Your task to perform on an android device: Go to display settings Image 0: 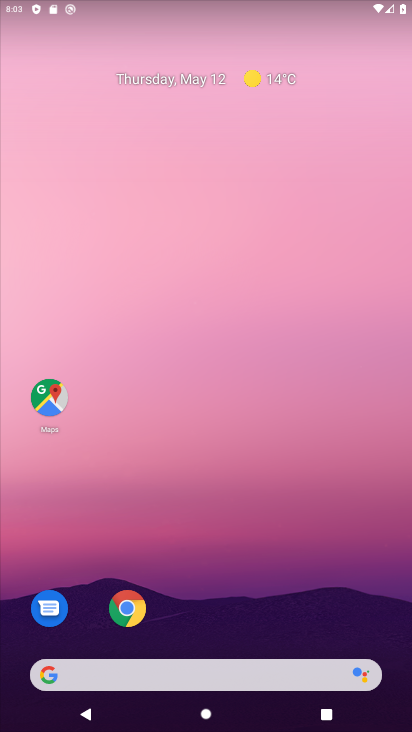
Step 0: drag from (204, 642) to (204, 281)
Your task to perform on an android device: Go to display settings Image 1: 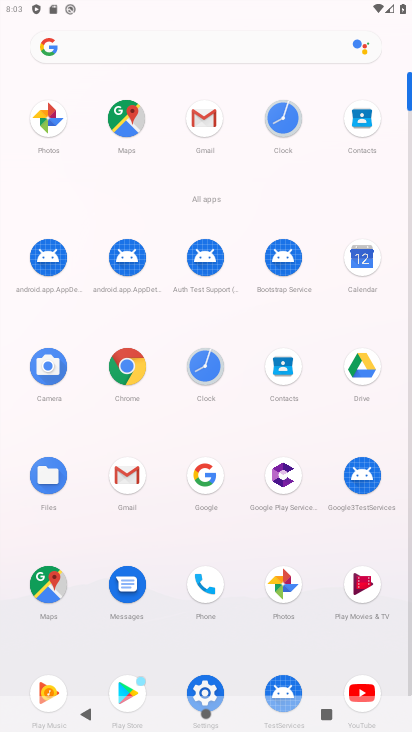
Step 1: drag from (241, 665) to (279, 441)
Your task to perform on an android device: Go to display settings Image 2: 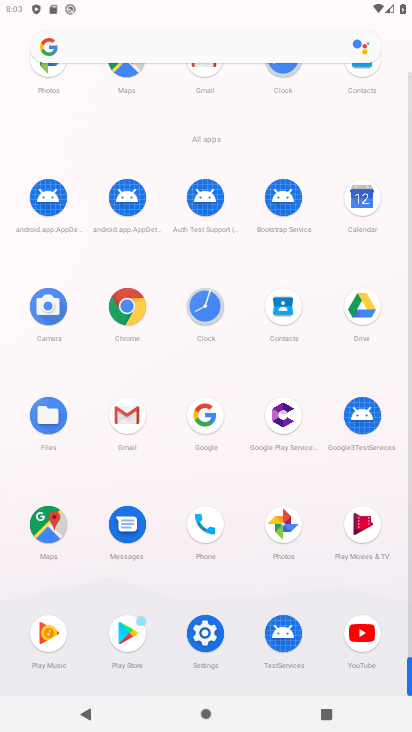
Step 2: click (205, 630)
Your task to perform on an android device: Go to display settings Image 3: 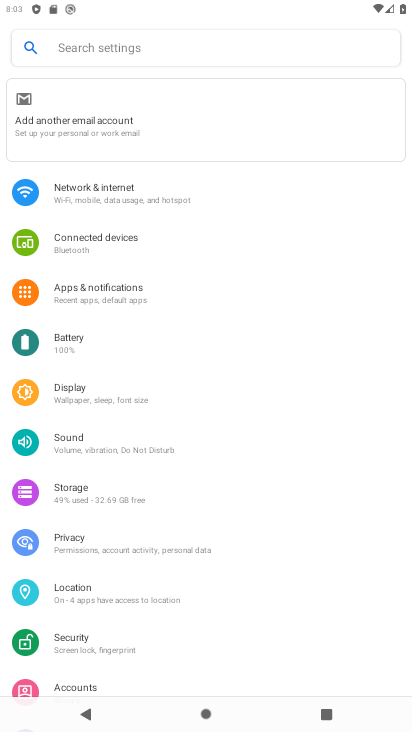
Step 3: click (119, 391)
Your task to perform on an android device: Go to display settings Image 4: 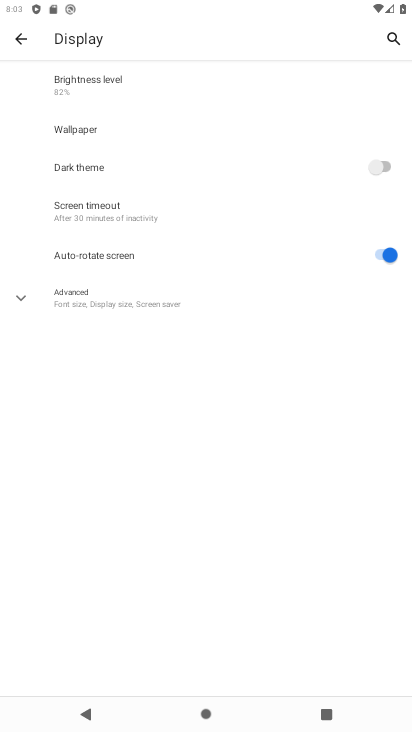
Step 4: click (86, 294)
Your task to perform on an android device: Go to display settings Image 5: 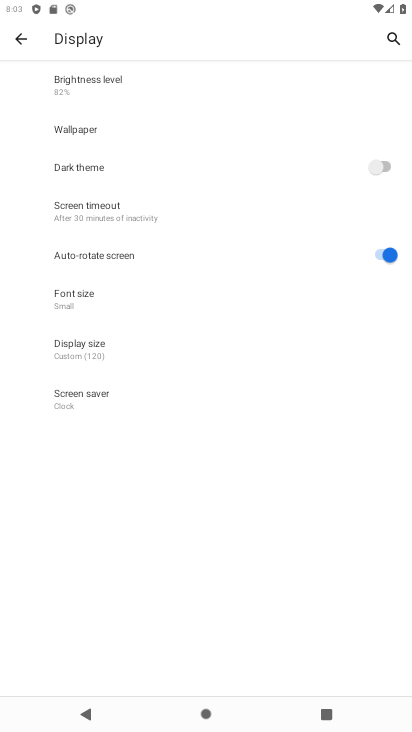
Step 5: task complete